Your task to perform on an android device: Is it going to rain today? Image 0: 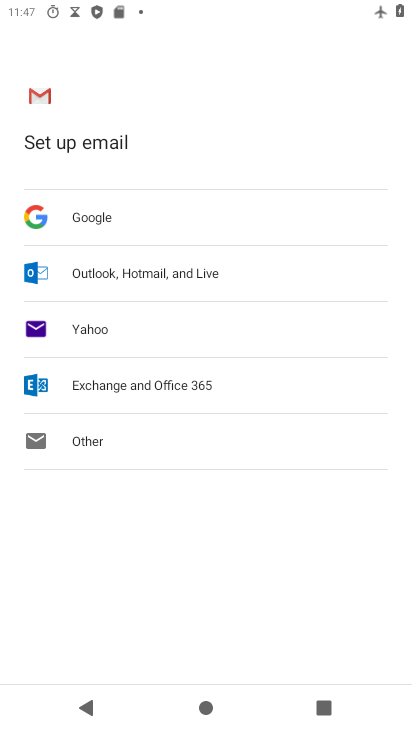
Step 0: press home button
Your task to perform on an android device: Is it going to rain today? Image 1: 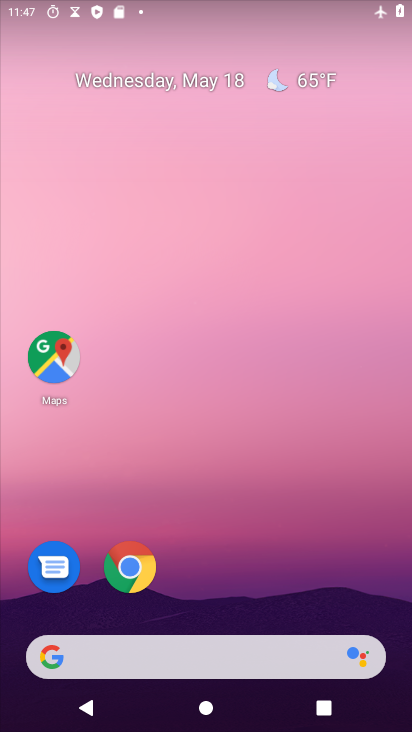
Step 1: drag from (253, 623) to (283, 68)
Your task to perform on an android device: Is it going to rain today? Image 2: 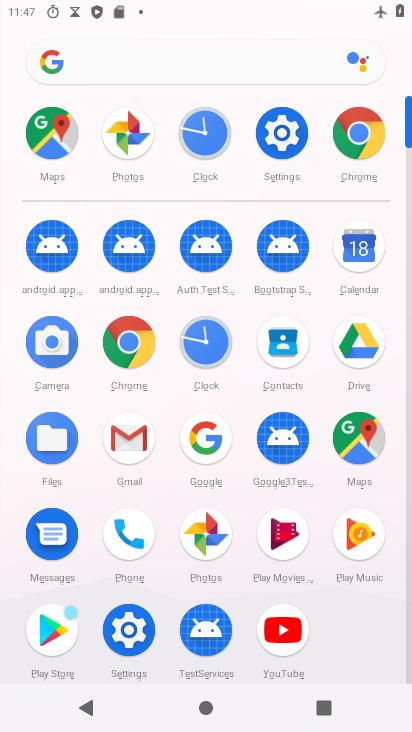
Step 2: click (203, 445)
Your task to perform on an android device: Is it going to rain today? Image 3: 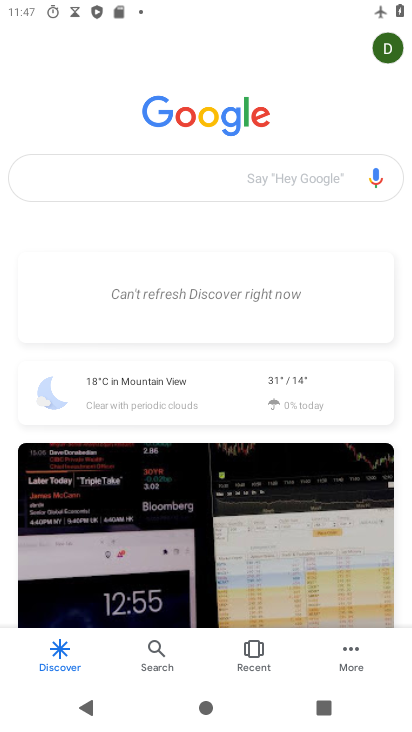
Step 3: click (279, 190)
Your task to perform on an android device: Is it going to rain today? Image 4: 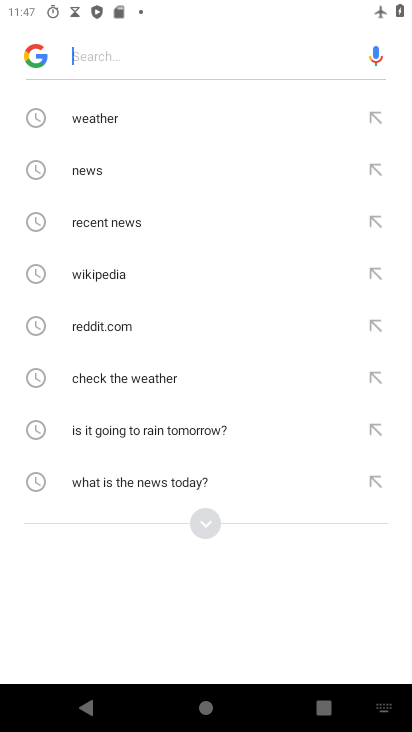
Step 4: click (147, 125)
Your task to perform on an android device: Is it going to rain today? Image 5: 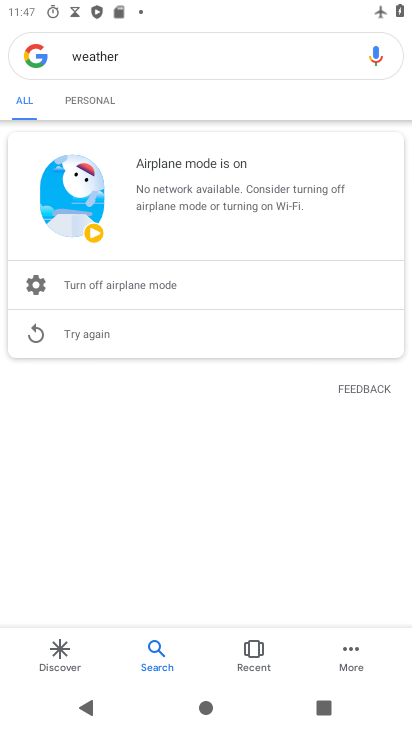
Step 5: task complete